Your task to perform on an android device: toggle translation in the chrome app Image 0: 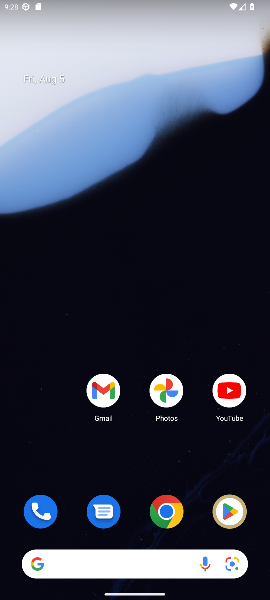
Step 0: click (168, 513)
Your task to perform on an android device: toggle translation in the chrome app Image 1: 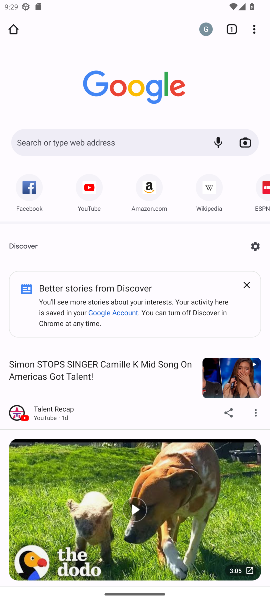
Step 1: click (254, 32)
Your task to perform on an android device: toggle translation in the chrome app Image 2: 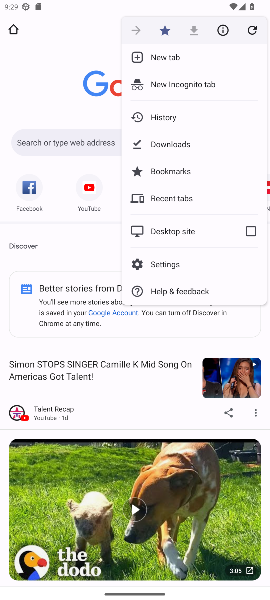
Step 2: click (163, 265)
Your task to perform on an android device: toggle translation in the chrome app Image 3: 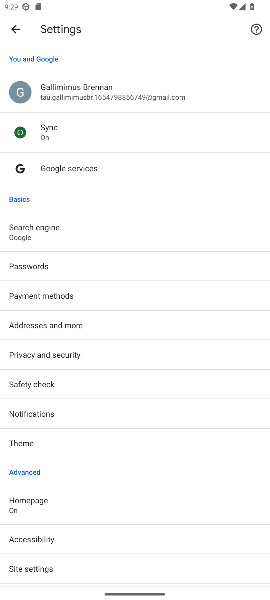
Step 3: drag from (61, 492) to (152, 360)
Your task to perform on an android device: toggle translation in the chrome app Image 4: 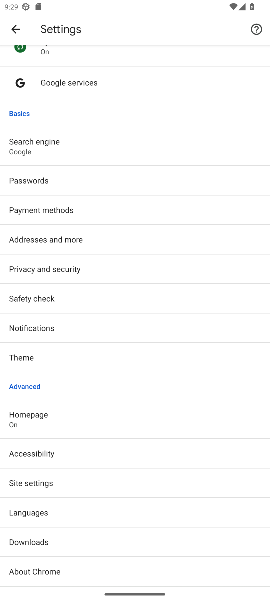
Step 4: drag from (86, 509) to (129, 454)
Your task to perform on an android device: toggle translation in the chrome app Image 5: 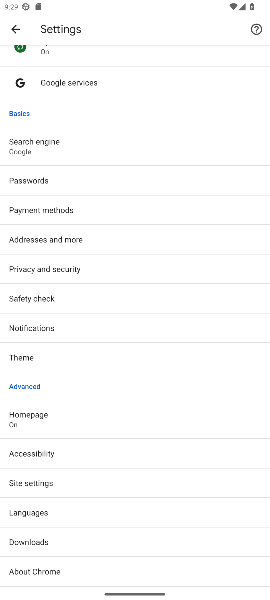
Step 5: click (42, 514)
Your task to perform on an android device: toggle translation in the chrome app Image 6: 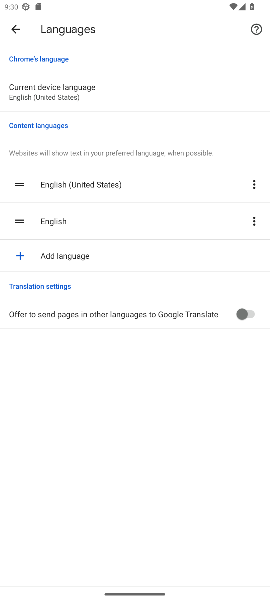
Step 6: click (248, 305)
Your task to perform on an android device: toggle translation in the chrome app Image 7: 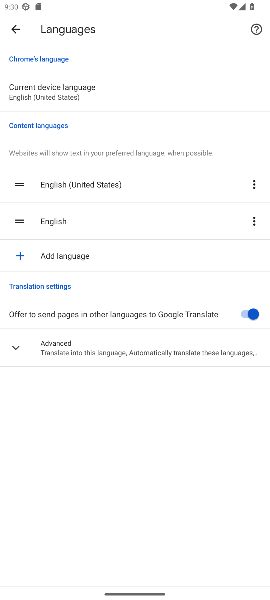
Step 7: task complete